Your task to perform on an android device: add a label to a message in the gmail app Image 0: 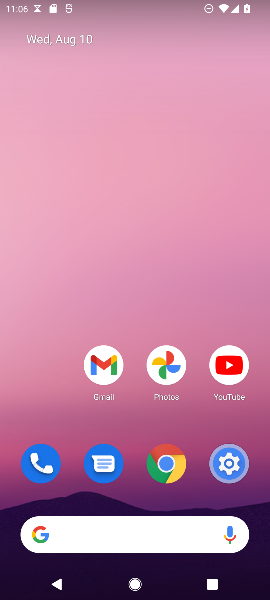
Step 0: click (106, 375)
Your task to perform on an android device: add a label to a message in the gmail app Image 1: 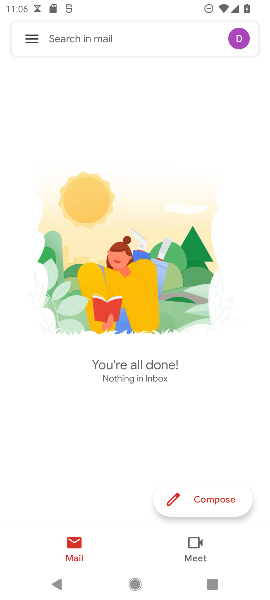
Step 1: click (24, 47)
Your task to perform on an android device: add a label to a message in the gmail app Image 2: 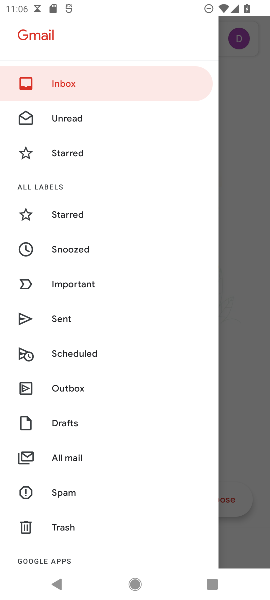
Step 2: click (72, 83)
Your task to perform on an android device: add a label to a message in the gmail app Image 3: 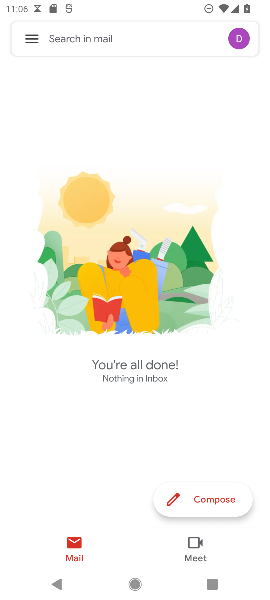
Step 3: task complete